Your task to perform on an android device: allow notifications from all sites in the chrome app Image 0: 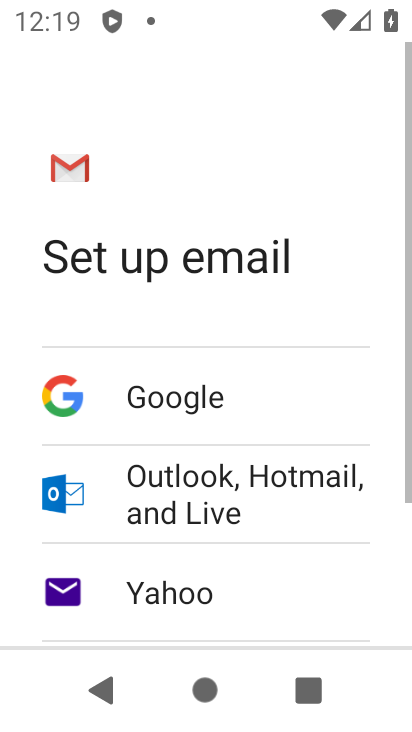
Step 0: press home button
Your task to perform on an android device: allow notifications from all sites in the chrome app Image 1: 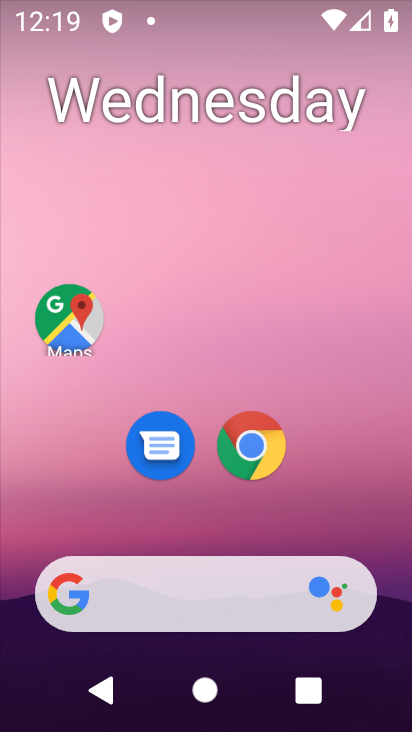
Step 1: drag from (194, 618) to (196, 158)
Your task to perform on an android device: allow notifications from all sites in the chrome app Image 2: 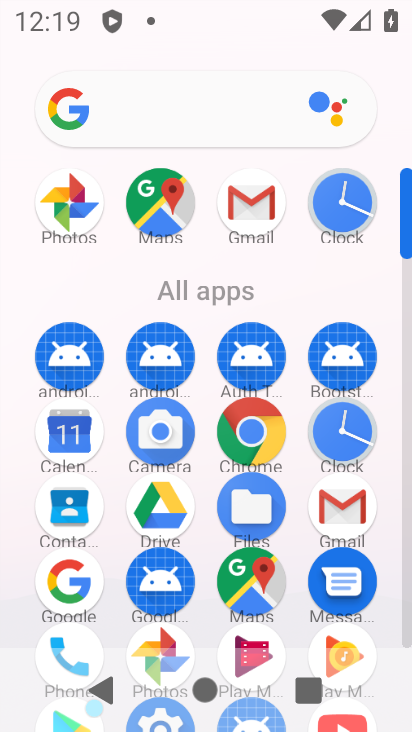
Step 2: click (239, 427)
Your task to perform on an android device: allow notifications from all sites in the chrome app Image 3: 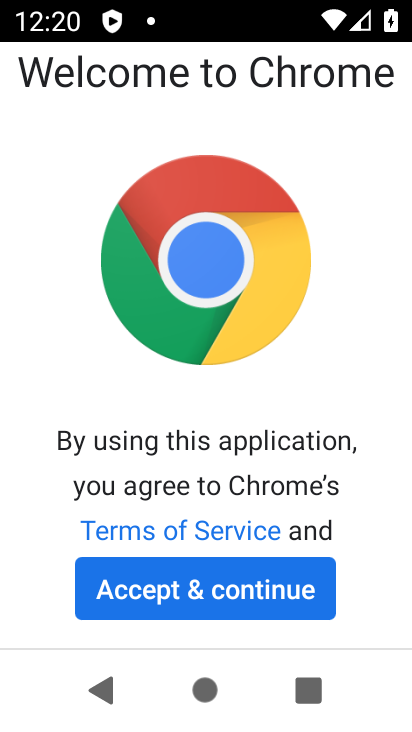
Step 3: click (327, 448)
Your task to perform on an android device: allow notifications from all sites in the chrome app Image 4: 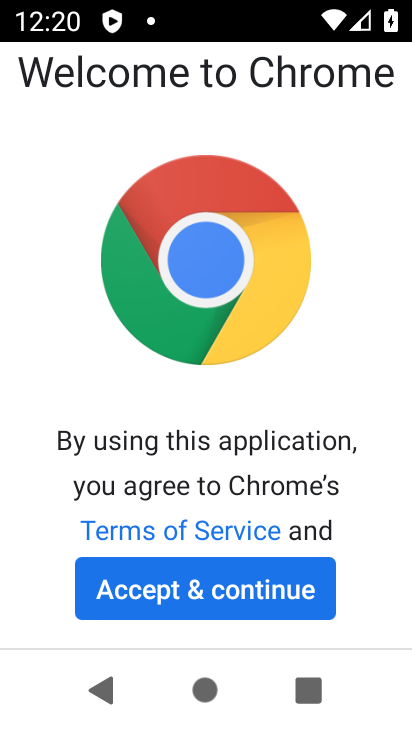
Step 4: click (222, 602)
Your task to perform on an android device: allow notifications from all sites in the chrome app Image 5: 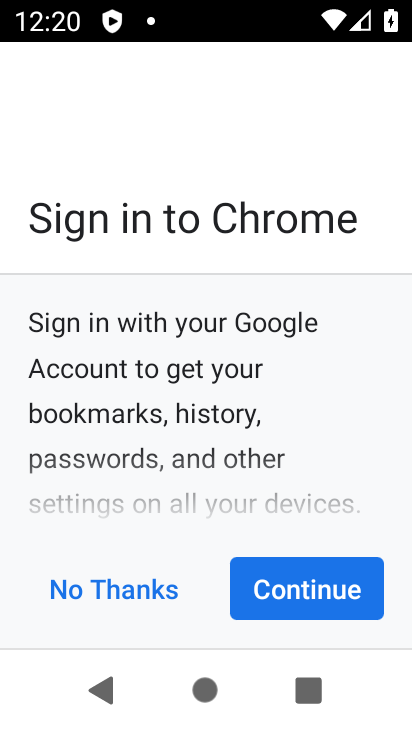
Step 5: click (277, 595)
Your task to perform on an android device: allow notifications from all sites in the chrome app Image 6: 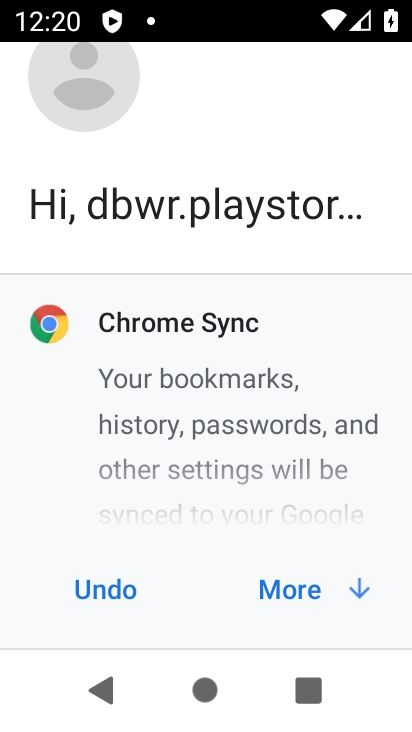
Step 6: click (277, 595)
Your task to perform on an android device: allow notifications from all sites in the chrome app Image 7: 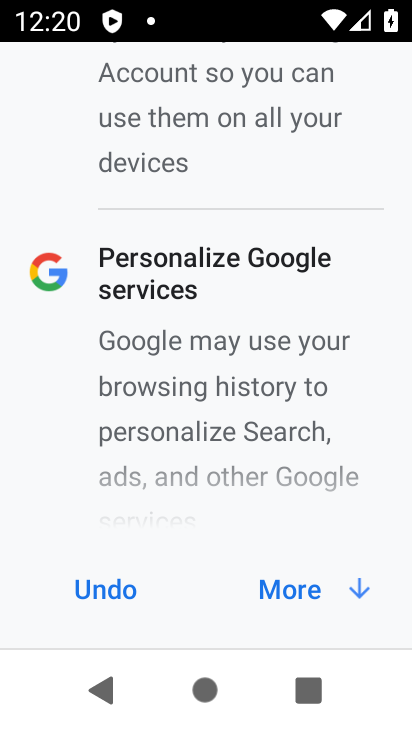
Step 7: click (277, 595)
Your task to perform on an android device: allow notifications from all sites in the chrome app Image 8: 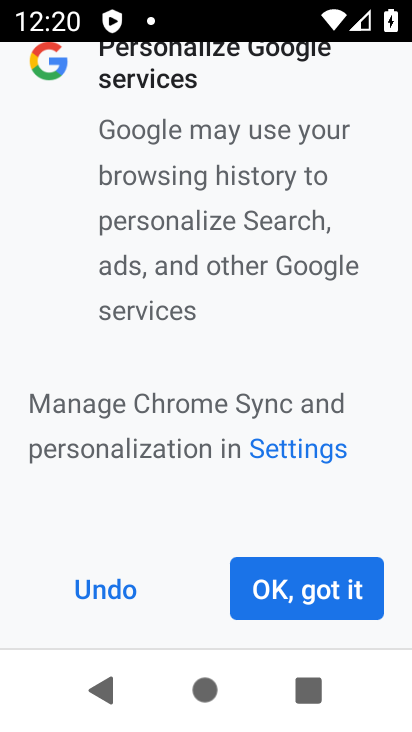
Step 8: click (277, 595)
Your task to perform on an android device: allow notifications from all sites in the chrome app Image 9: 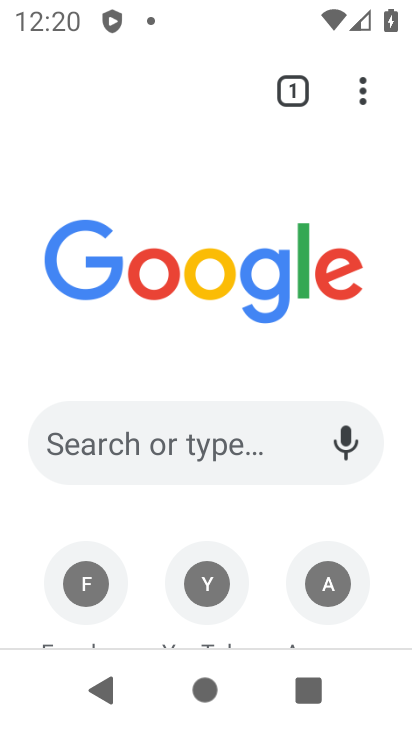
Step 9: click (367, 111)
Your task to perform on an android device: allow notifications from all sites in the chrome app Image 10: 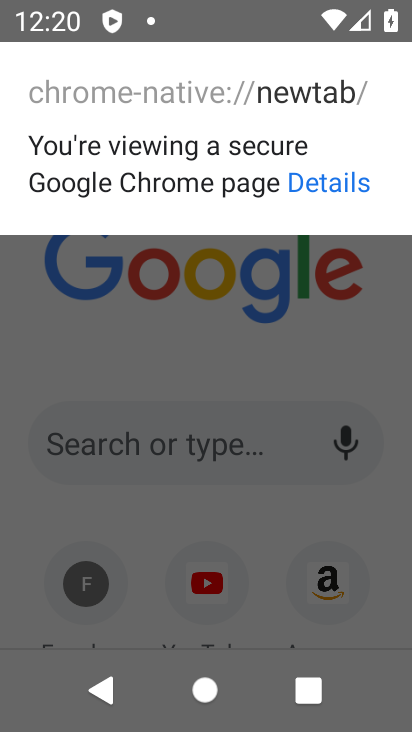
Step 10: click (296, 302)
Your task to perform on an android device: allow notifications from all sites in the chrome app Image 11: 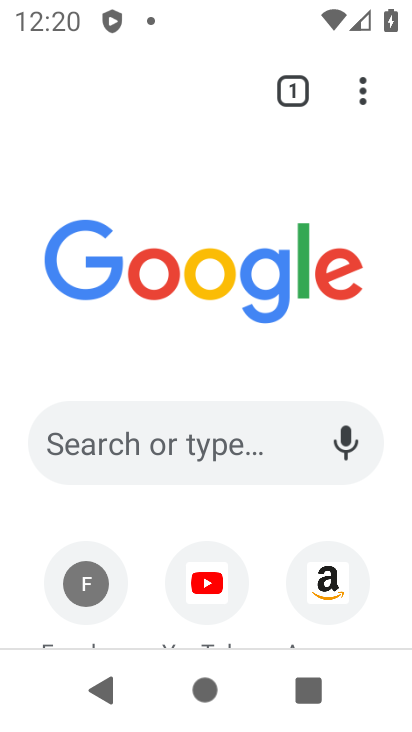
Step 11: drag from (364, 93) to (163, 478)
Your task to perform on an android device: allow notifications from all sites in the chrome app Image 12: 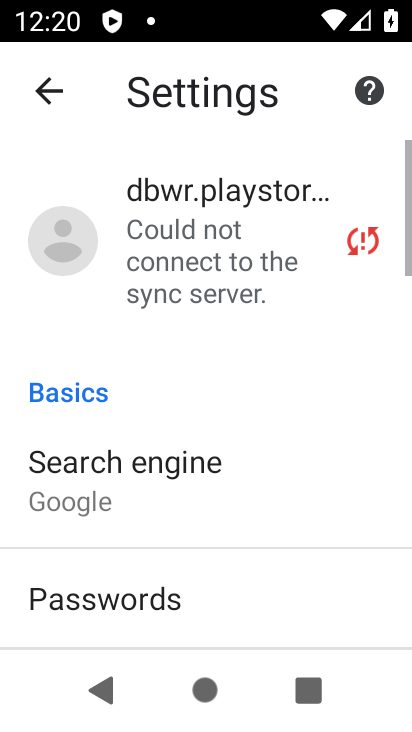
Step 12: drag from (163, 526) to (196, 42)
Your task to perform on an android device: allow notifications from all sites in the chrome app Image 13: 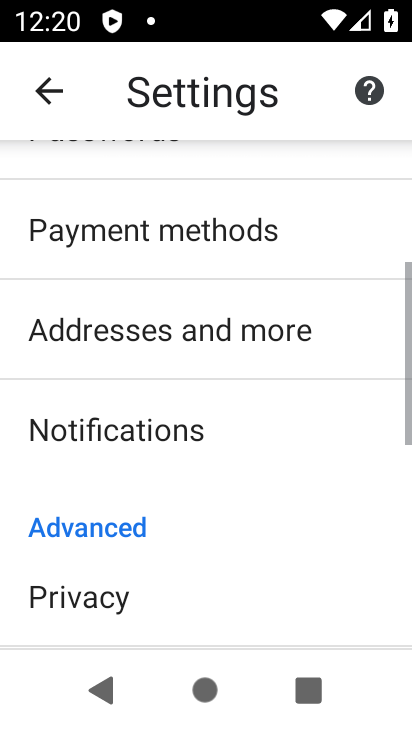
Step 13: drag from (168, 404) to (154, 3)
Your task to perform on an android device: allow notifications from all sites in the chrome app Image 14: 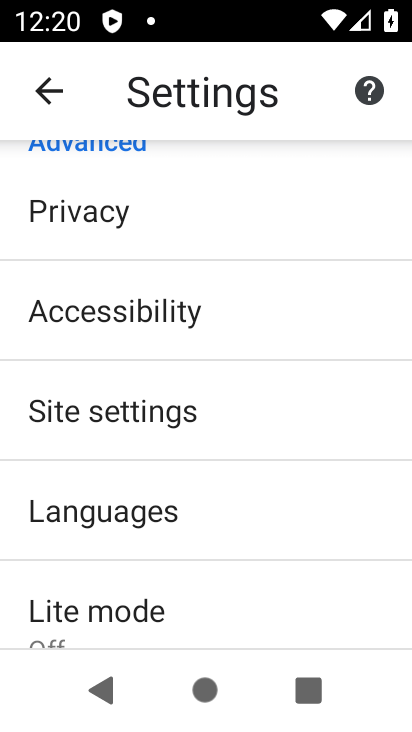
Step 14: click (152, 420)
Your task to perform on an android device: allow notifications from all sites in the chrome app Image 15: 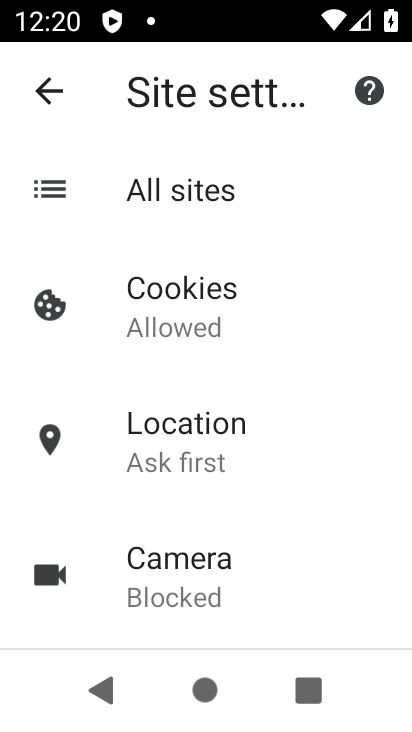
Step 15: drag from (211, 570) to (206, 59)
Your task to perform on an android device: allow notifications from all sites in the chrome app Image 16: 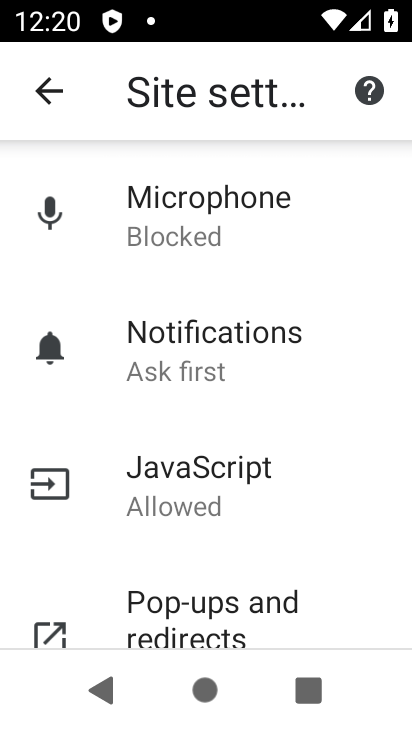
Step 16: click (207, 344)
Your task to perform on an android device: allow notifications from all sites in the chrome app Image 17: 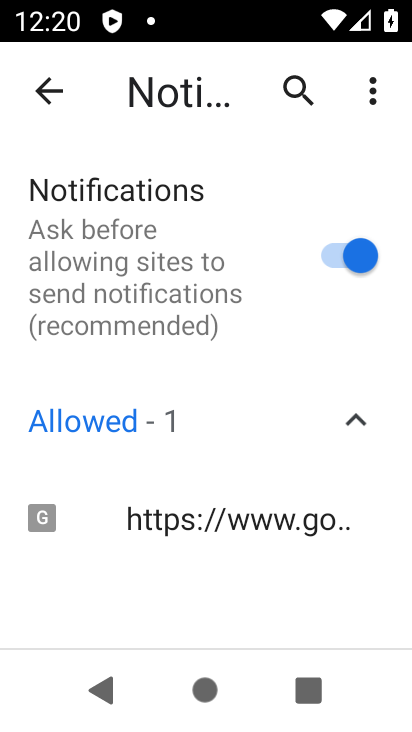
Step 17: task complete